Your task to perform on an android device: change timer sound Image 0: 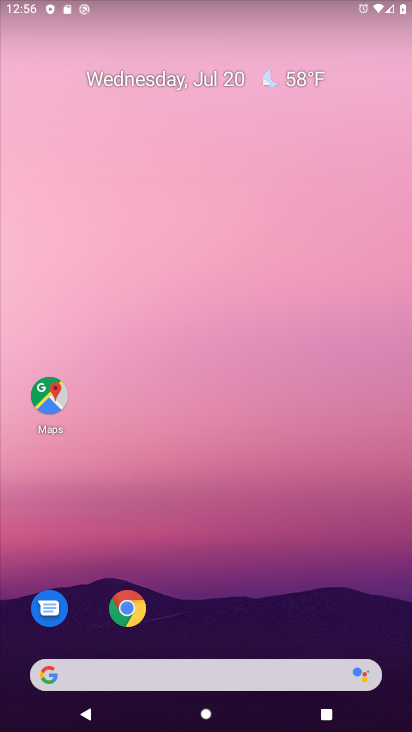
Step 0: drag from (146, 679) to (186, 94)
Your task to perform on an android device: change timer sound Image 1: 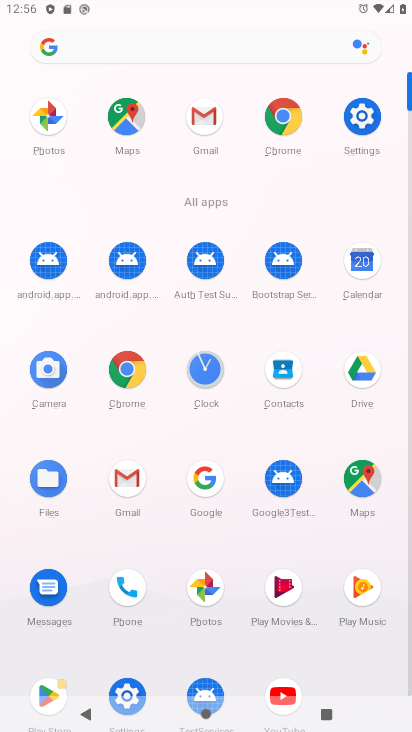
Step 1: click (213, 373)
Your task to perform on an android device: change timer sound Image 2: 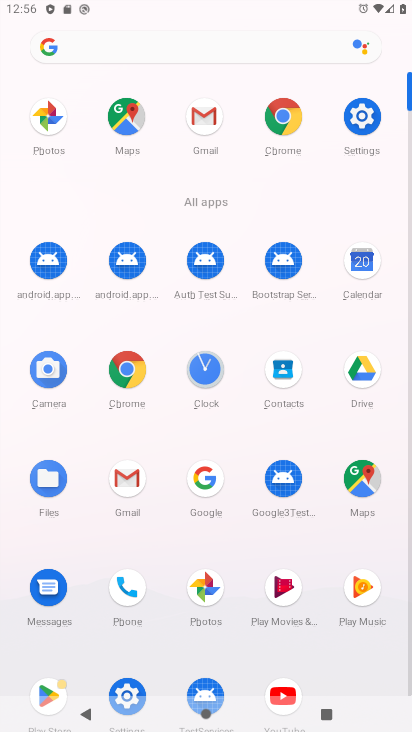
Step 2: click (213, 373)
Your task to perform on an android device: change timer sound Image 3: 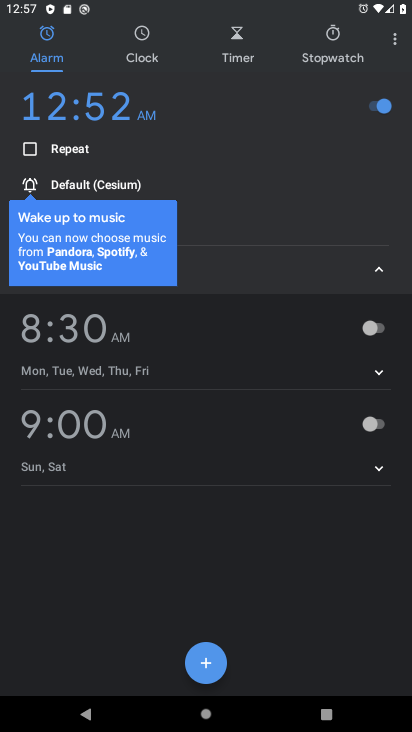
Step 3: click (398, 38)
Your task to perform on an android device: change timer sound Image 4: 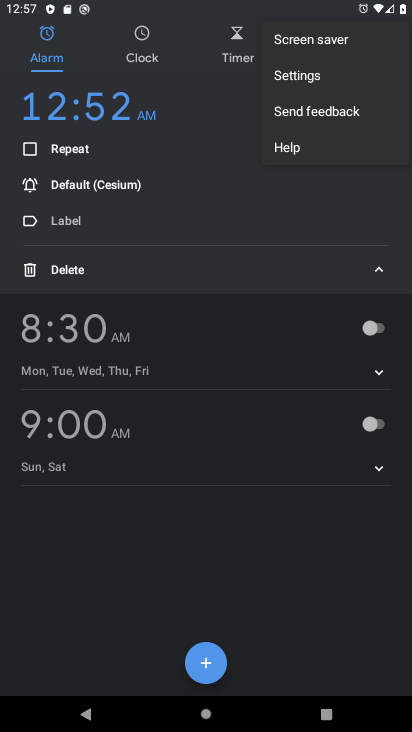
Step 4: click (334, 78)
Your task to perform on an android device: change timer sound Image 5: 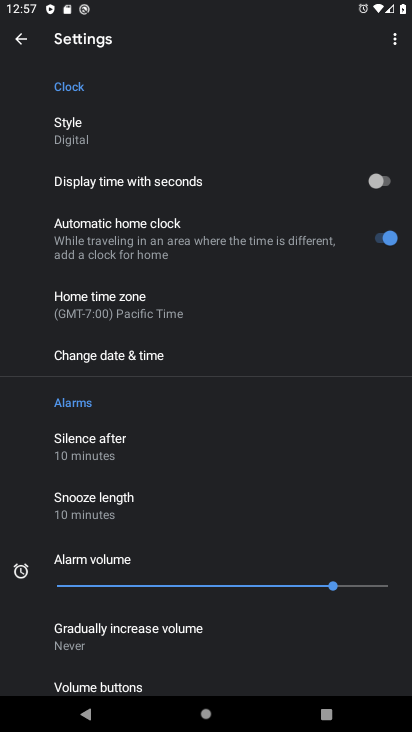
Step 5: drag from (241, 641) to (285, 209)
Your task to perform on an android device: change timer sound Image 6: 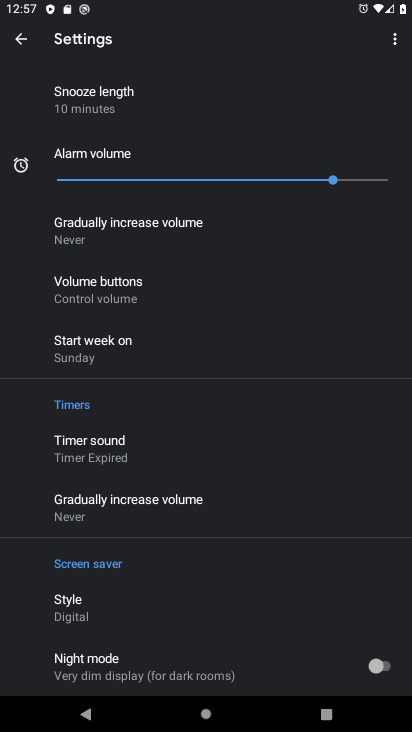
Step 6: click (111, 449)
Your task to perform on an android device: change timer sound Image 7: 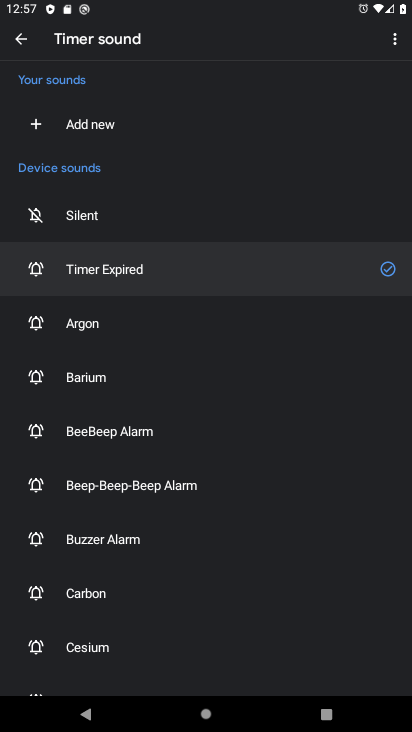
Step 7: click (136, 544)
Your task to perform on an android device: change timer sound Image 8: 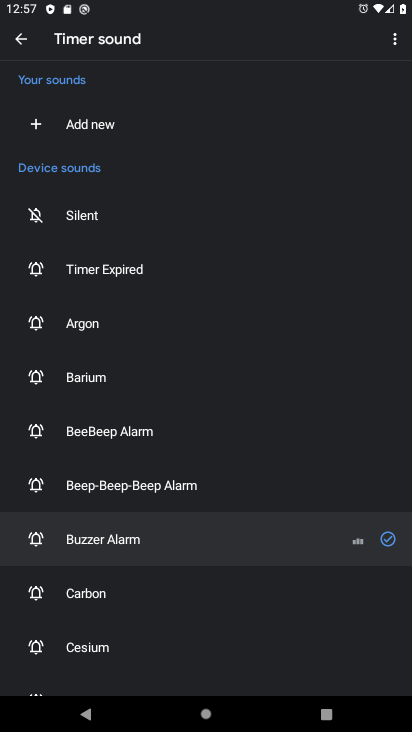
Step 8: task complete